Your task to perform on an android device: What's the weather today? Image 0: 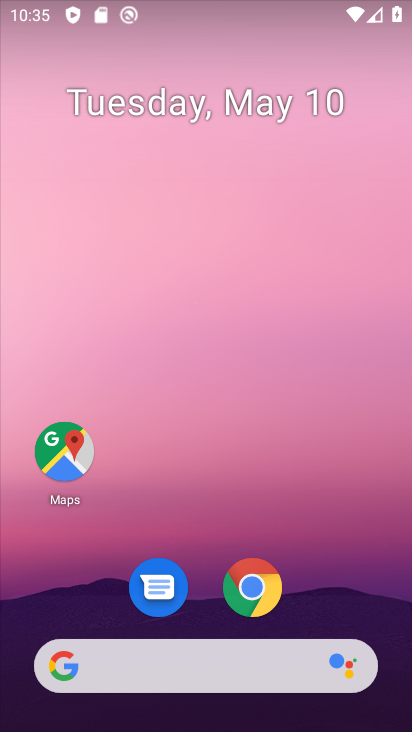
Step 0: drag from (302, 588) to (336, 186)
Your task to perform on an android device: What's the weather today? Image 1: 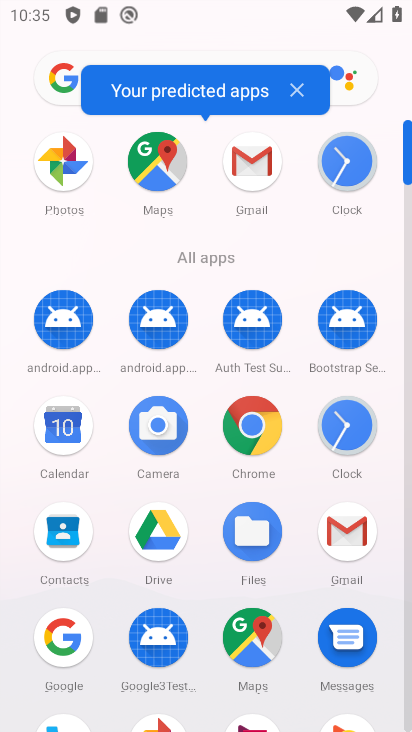
Step 1: drag from (104, 633) to (184, 329)
Your task to perform on an android device: What's the weather today? Image 2: 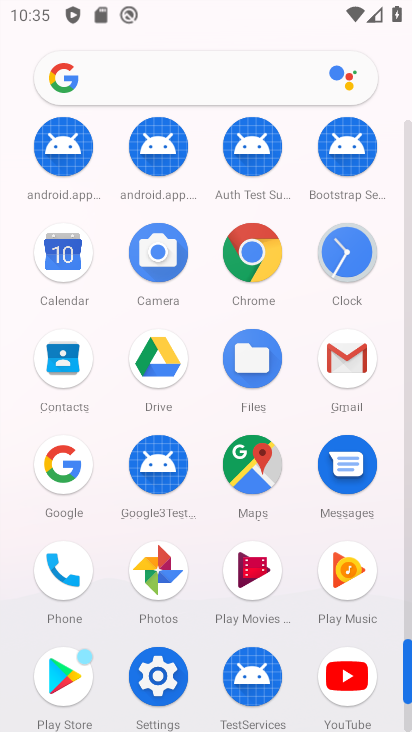
Step 2: click (66, 468)
Your task to perform on an android device: What's the weather today? Image 3: 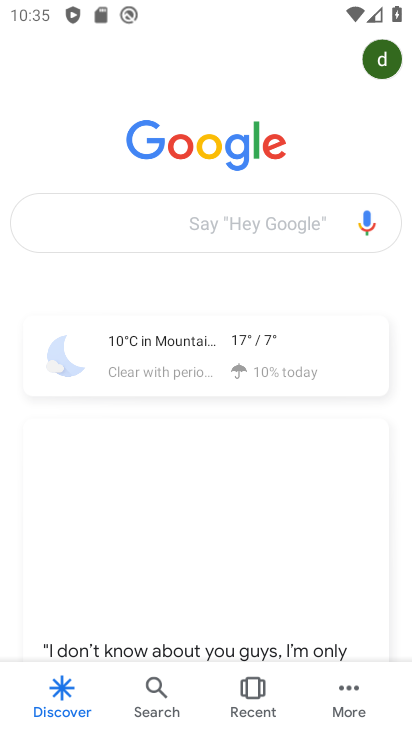
Step 3: click (256, 223)
Your task to perform on an android device: What's the weather today? Image 4: 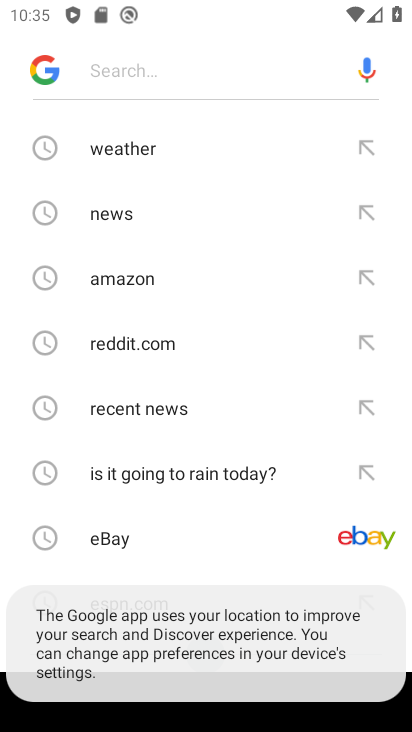
Step 4: click (159, 151)
Your task to perform on an android device: What's the weather today? Image 5: 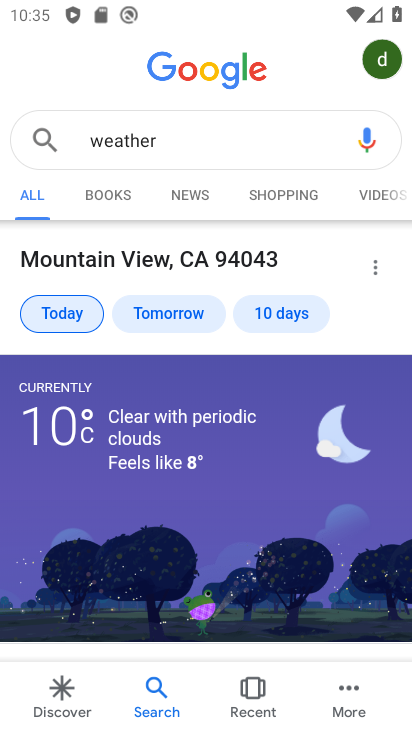
Step 5: task complete